Your task to perform on an android device: Check the weather Image 0: 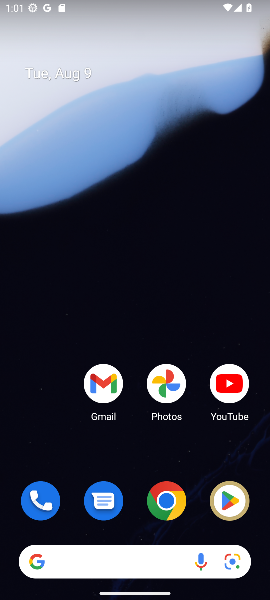
Step 0: drag from (104, 456) to (64, 215)
Your task to perform on an android device: Check the weather Image 1: 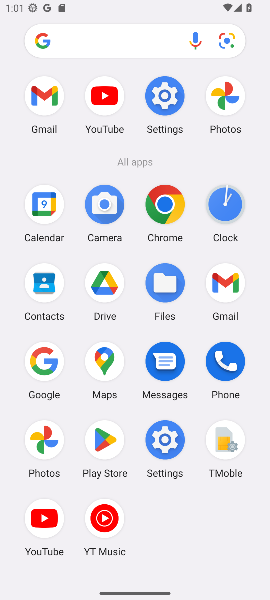
Step 1: click (43, 350)
Your task to perform on an android device: Check the weather Image 2: 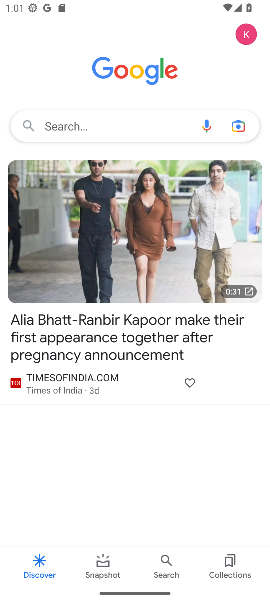
Step 2: click (117, 119)
Your task to perform on an android device: Check the weather Image 3: 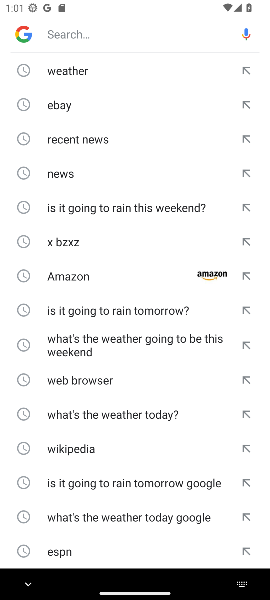
Step 3: type "weather"
Your task to perform on an android device: Check the weather Image 4: 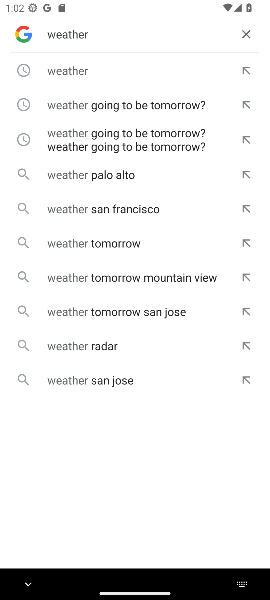
Step 4: click (137, 67)
Your task to perform on an android device: Check the weather Image 5: 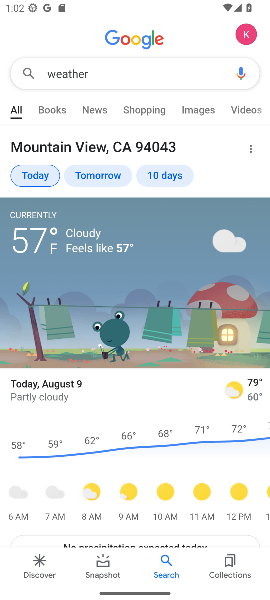
Step 5: task complete